Your task to perform on an android device: Do I have any events this weekend? Image 0: 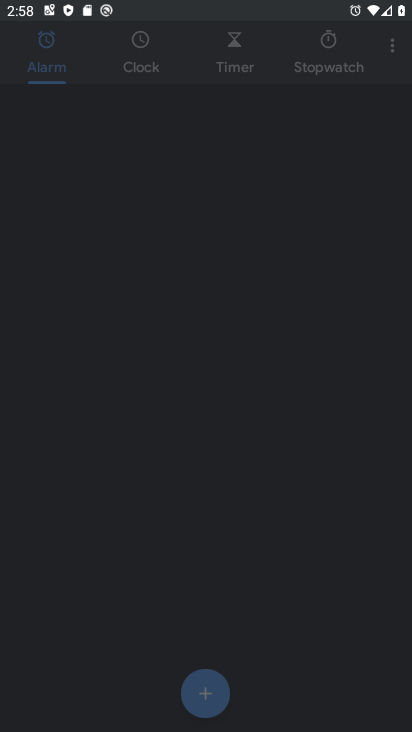
Step 0: press home button
Your task to perform on an android device: Do I have any events this weekend? Image 1: 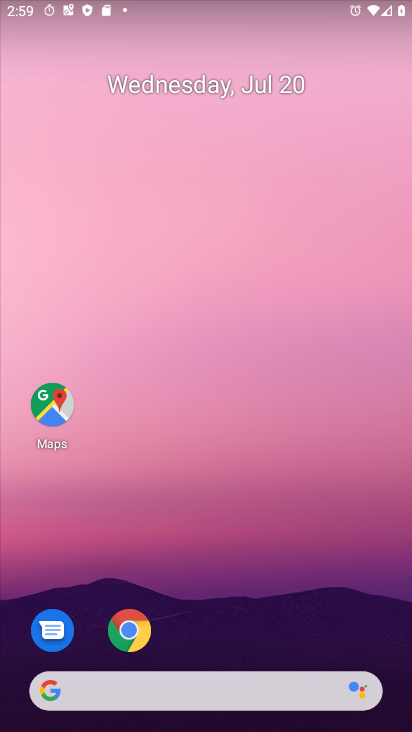
Step 1: drag from (140, 690) to (290, 148)
Your task to perform on an android device: Do I have any events this weekend? Image 2: 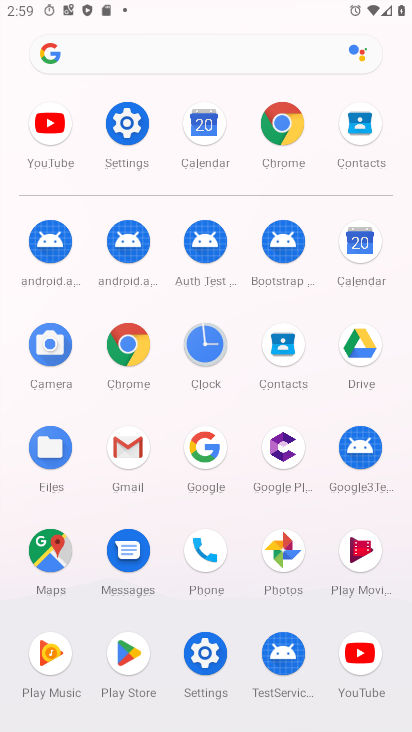
Step 2: click (355, 251)
Your task to perform on an android device: Do I have any events this weekend? Image 3: 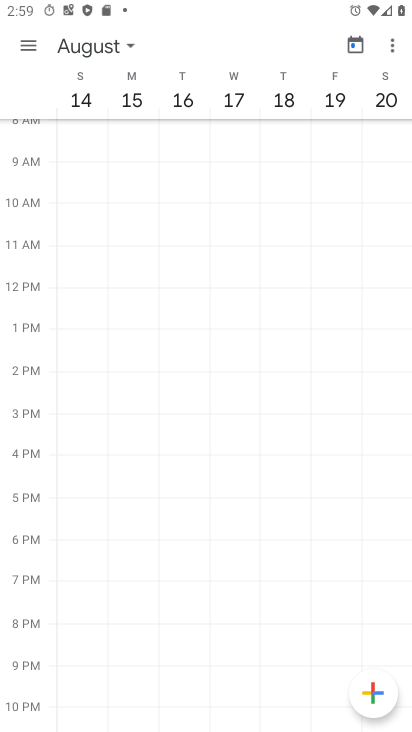
Step 3: click (78, 51)
Your task to perform on an android device: Do I have any events this weekend? Image 4: 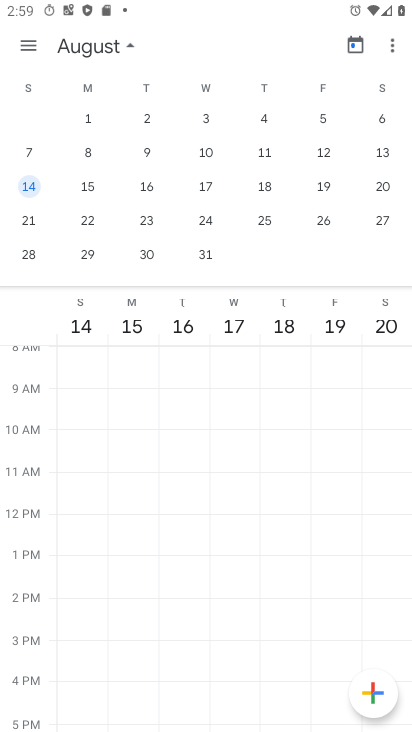
Step 4: drag from (54, 159) to (410, 181)
Your task to perform on an android device: Do I have any events this weekend? Image 5: 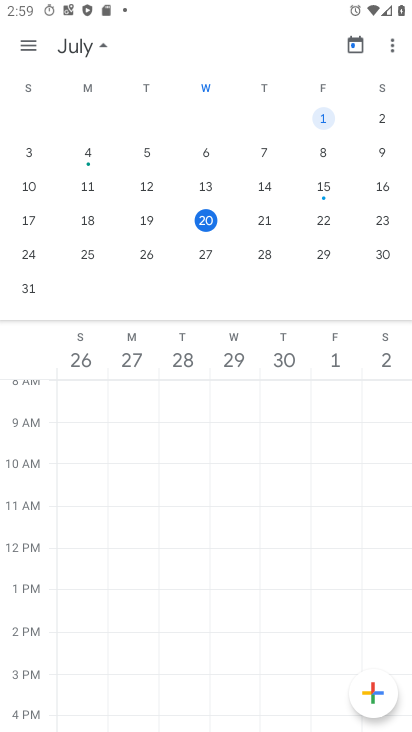
Step 5: click (381, 217)
Your task to perform on an android device: Do I have any events this weekend? Image 6: 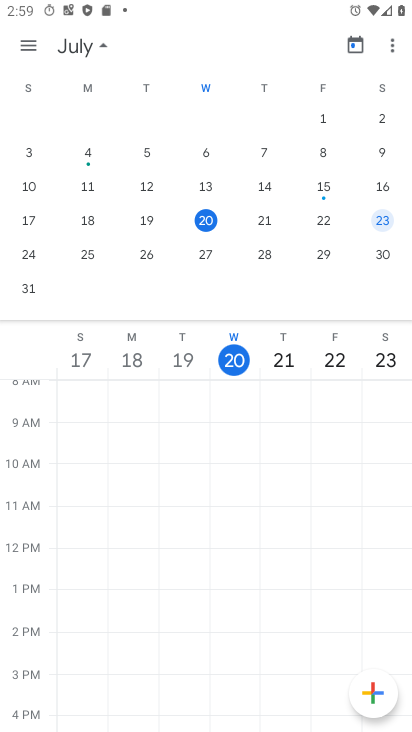
Step 6: click (38, 41)
Your task to perform on an android device: Do I have any events this weekend? Image 7: 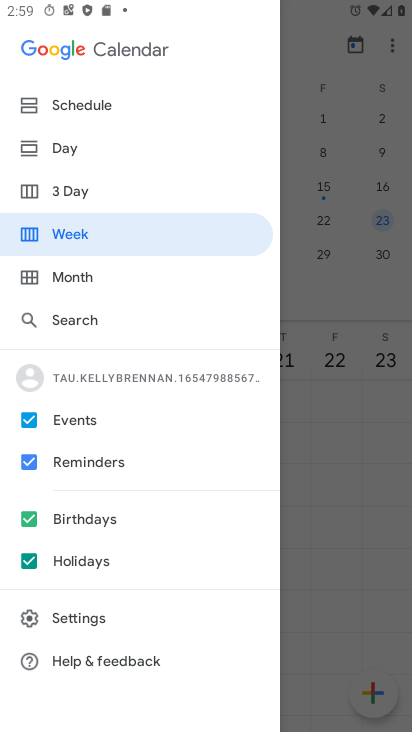
Step 7: click (78, 141)
Your task to perform on an android device: Do I have any events this weekend? Image 8: 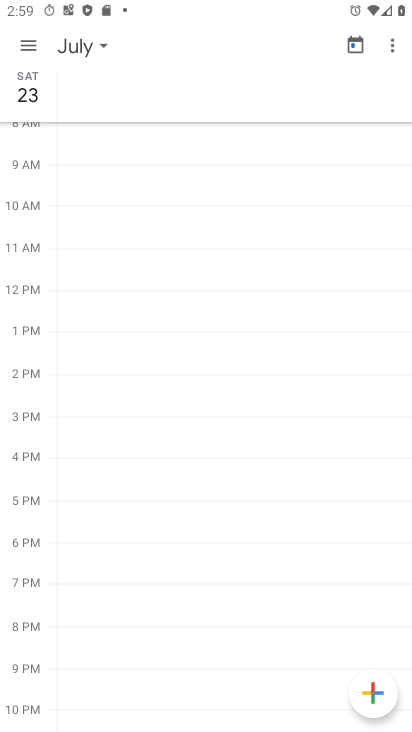
Step 8: click (31, 43)
Your task to perform on an android device: Do I have any events this weekend? Image 9: 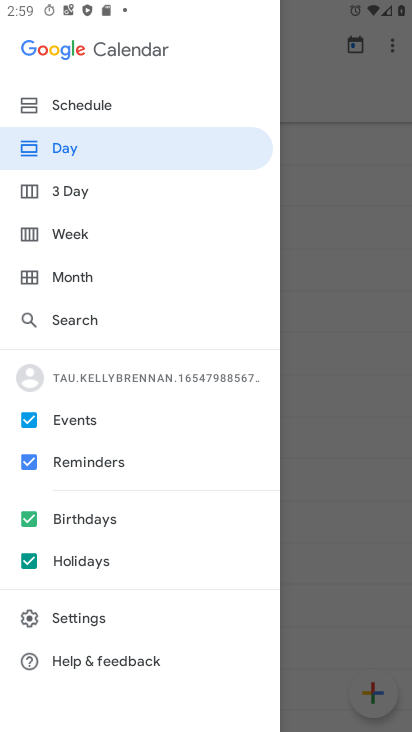
Step 9: click (74, 108)
Your task to perform on an android device: Do I have any events this weekend? Image 10: 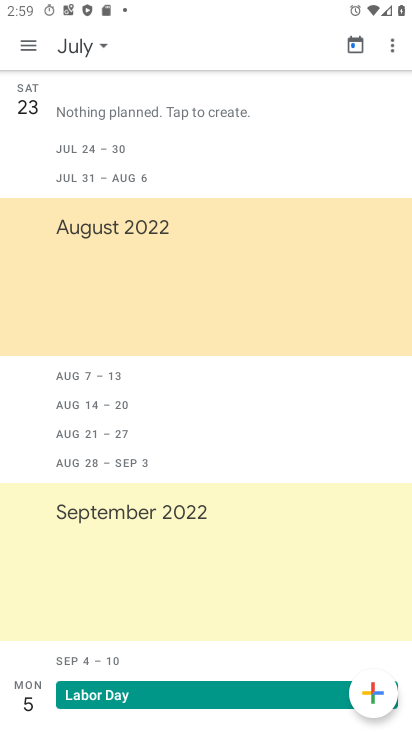
Step 10: task complete